Your task to perform on an android device: Search for seafood restaurants on Google Maps Image 0: 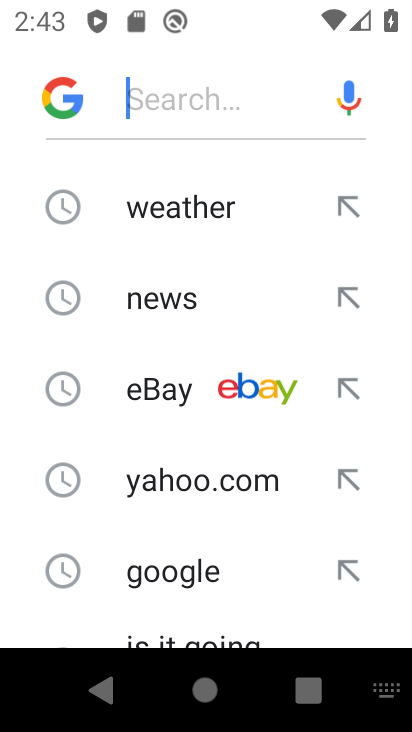
Step 0: press home button
Your task to perform on an android device: Search for seafood restaurants on Google Maps Image 1: 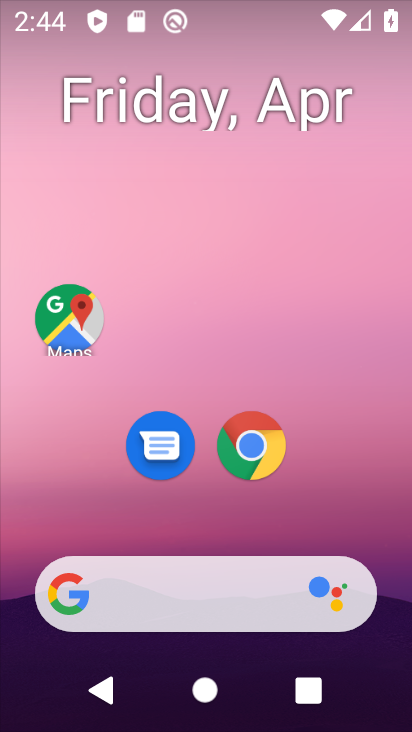
Step 1: click (74, 310)
Your task to perform on an android device: Search for seafood restaurants on Google Maps Image 2: 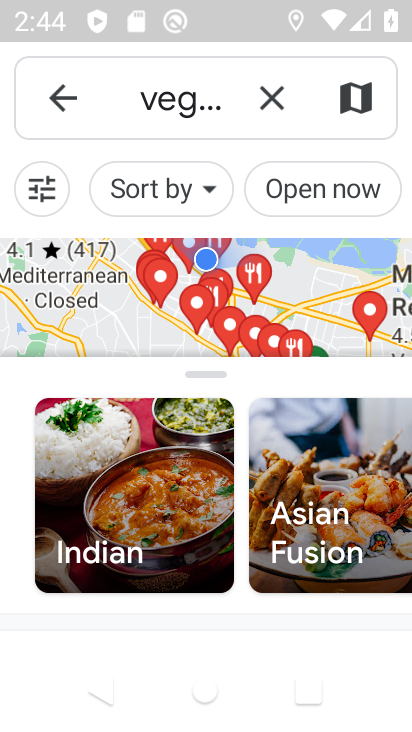
Step 2: click (271, 94)
Your task to perform on an android device: Search for seafood restaurants on Google Maps Image 3: 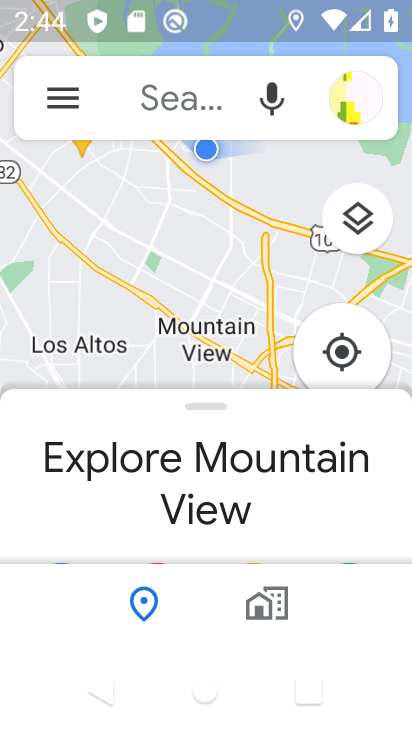
Step 3: click (160, 103)
Your task to perform on an android device: Search for seafood restaurants on Google Maps Image 4: 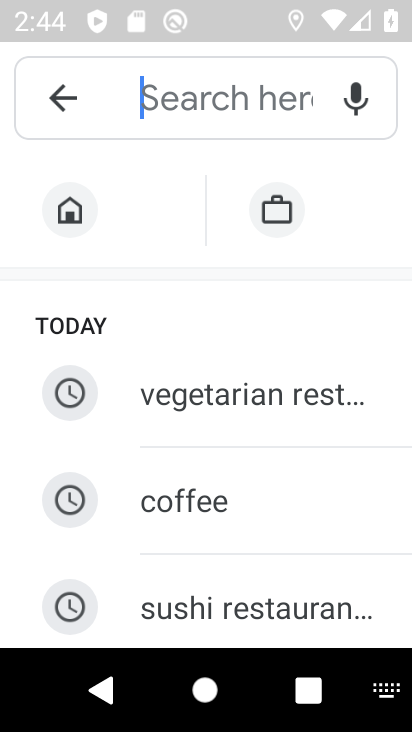
Step 4: type "seafood restaurants"
Your task to perform on an android device: Search for seafood restaurants on Google Maps Image 5: 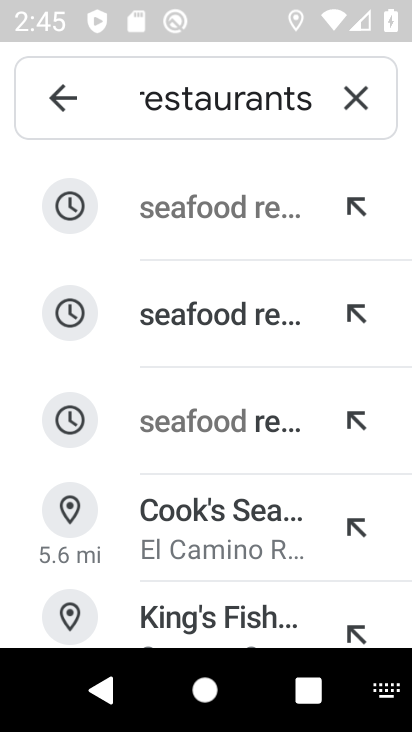
Step 5: click (251, 213)
Your task to perform on an android device: Search for seafood restaurants on Google Maps Image 6: 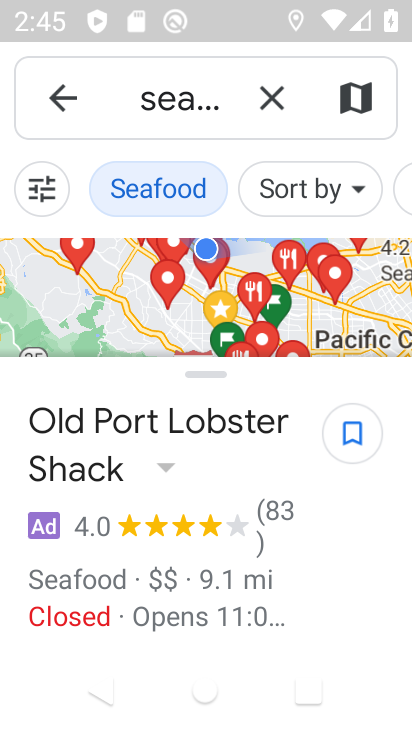
Step 6: task complete